Your task to perform on an android device: Open the calendar app, open the side menu, and click the "Day" option Image 0: 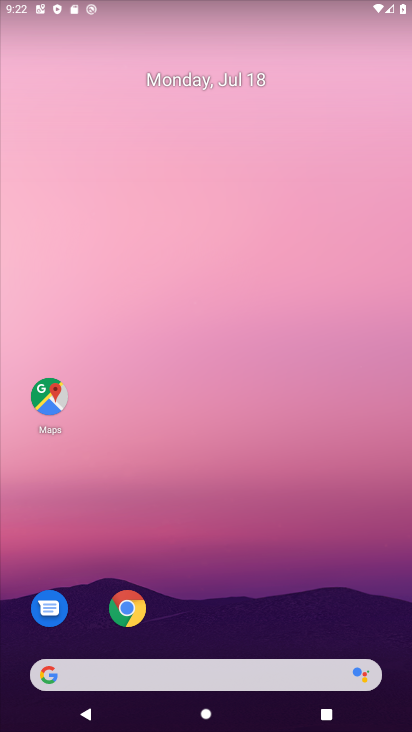
Step 0: drag from (207, 592) to (232, 44)
Your task to perform on an android device: Open the calendar app, open the side menu, and click the "Day" option Image 1: 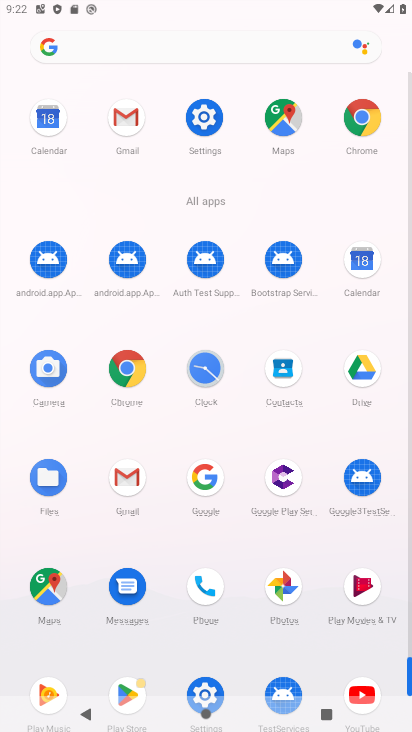
Step 1: click (368, 280)
Your task to perform on an android device: Open the calendar app, open the side menu, and click the "Day" option Image 2: 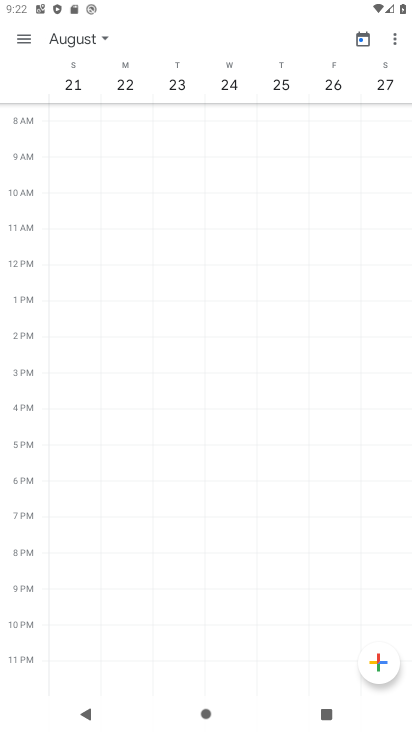
Step 2: click (23, 37)
Your task to perform on an android device: Open the calendar app, open the side menu, and click the "Day" option Image 3: 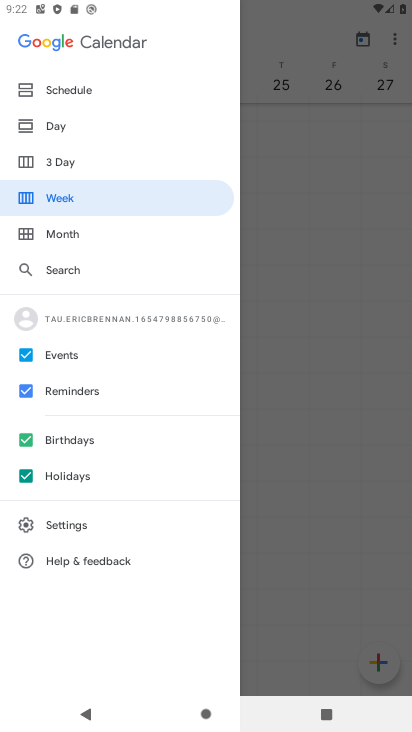
Step 3: click (65, 136)
Your task to perform on an android device: Open the calendar app, open the side menu, and click the "Day" option Image 4: 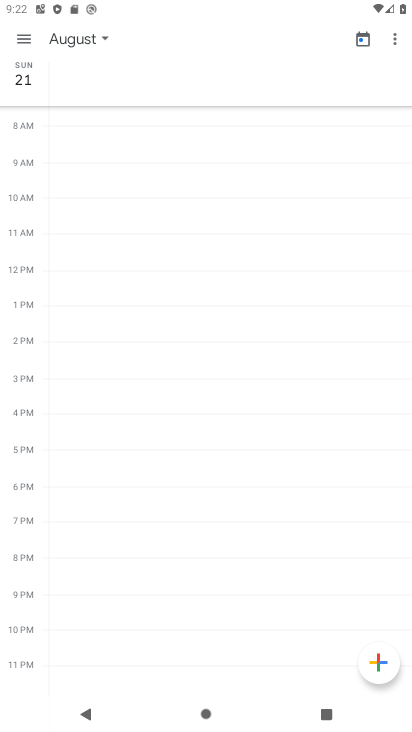
Step 4: task complete